Your task to perform on an android device: Do I have any events tomorrow? Image 0: 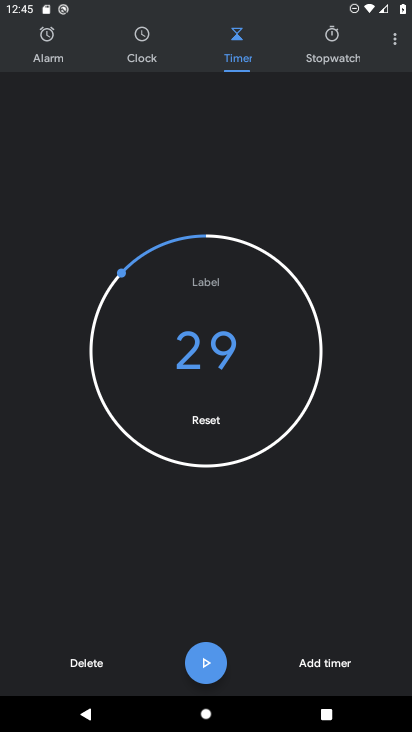
Step 0: press home button
Your task to perform on an android device: Do I have any events tomorrow? Image 1: 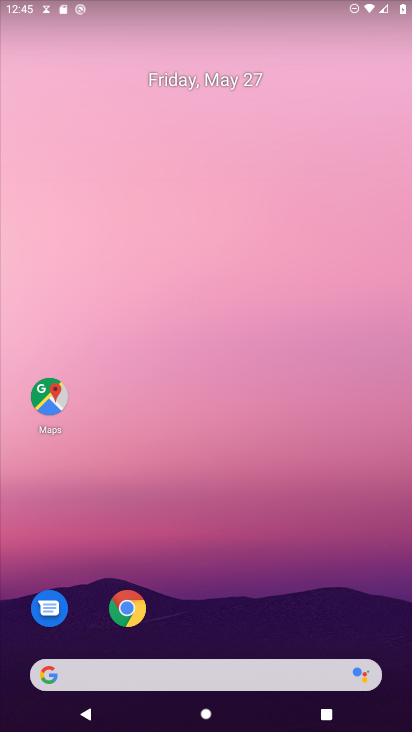
Step 1: drag from (144, 675) to (324, 84)
Your task to perform on an android device: Do I have any events tomorrow? Image 2: 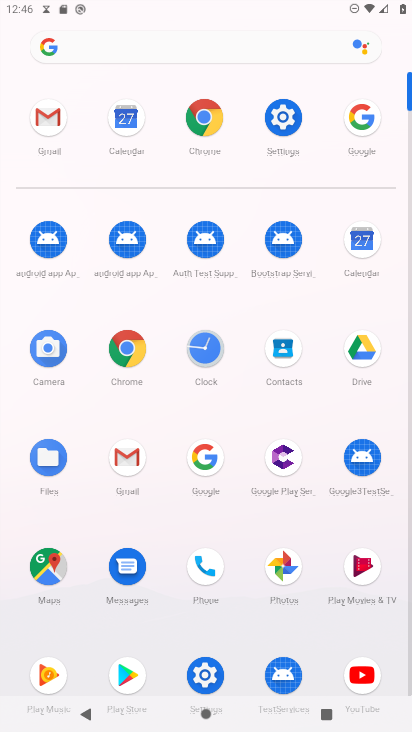
Step 2: click (358, 246)
Your task to perform on an android device: Do I have any events tomorrow? Image 3: 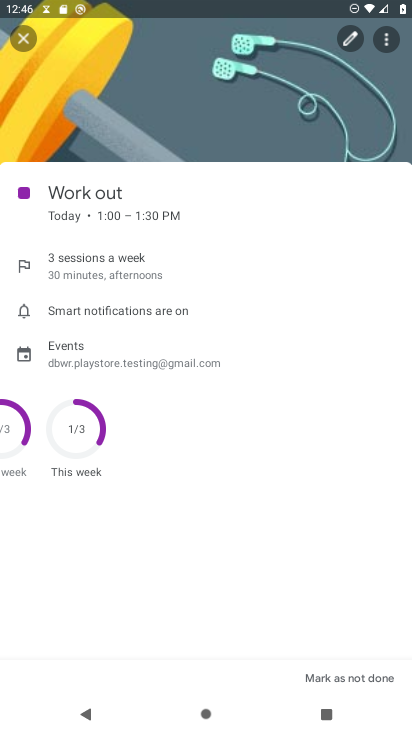
Step 3: click (20, 40)
Your task to perform on an android device: Do I have any events tomorrow? Image 4: 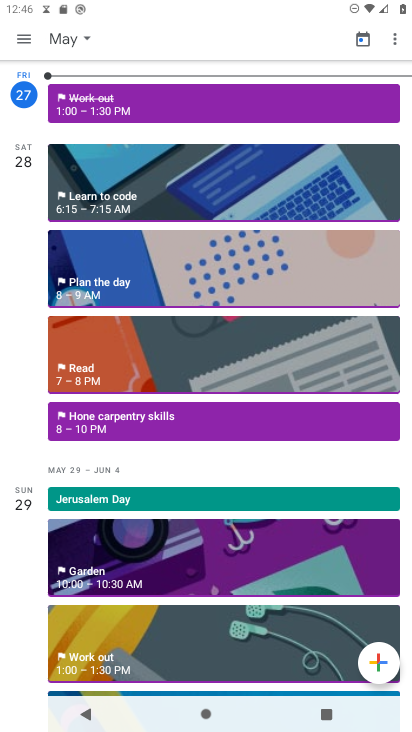
Step 4: click (62, 32)
Your task to perform on an android device: Do I have any events tomorrow? Image 5: 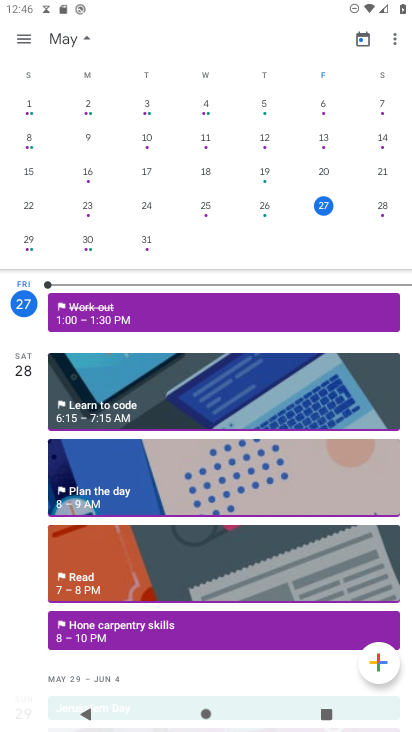
Step 5: click (381, 213)
Your task to perform on an android device: Do I have any events tomorrow? Image 6: 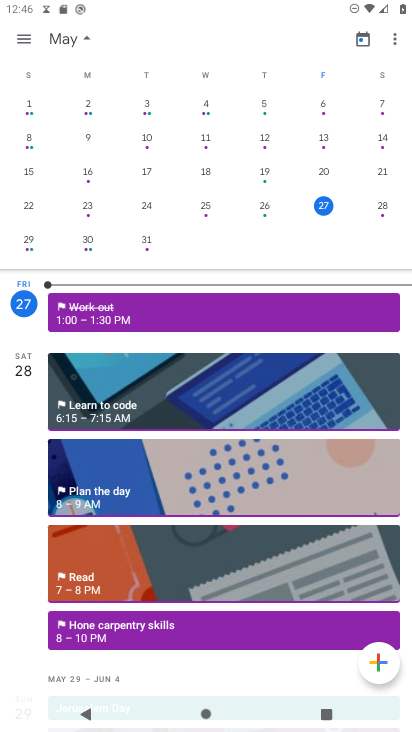
Step 6: click (383, 199)
Your task to perform on an android device: Do I have any events tomorrow? Image 7: 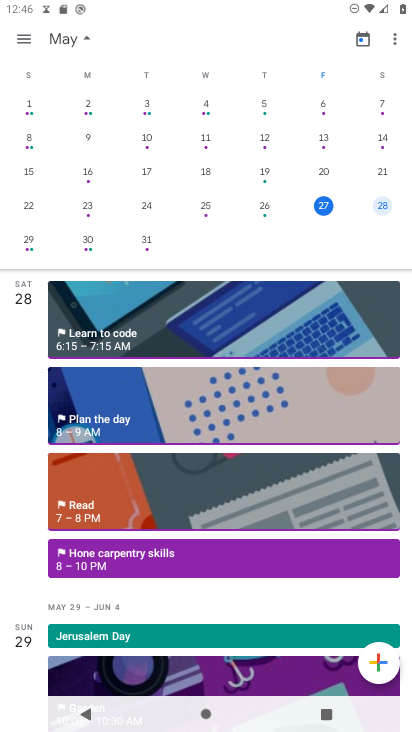
Step 7: click (23, 38)
Your task to perform on an android device: Do I have any events tomorrow? Image 8: 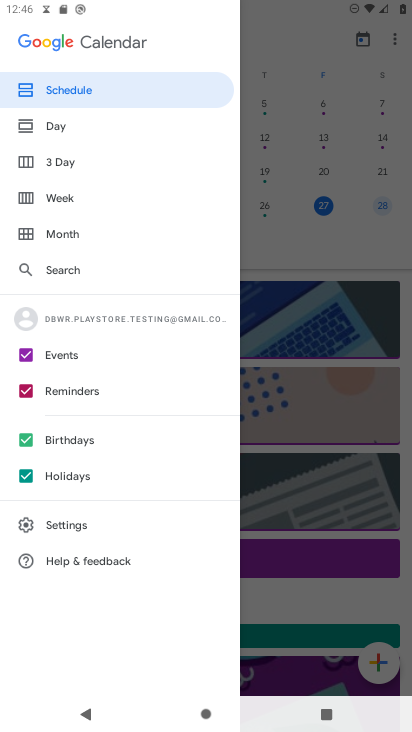
Step 8: click (73, 88)
Your task to perform on an android device: Do I have any events tomorrow? Image 9: 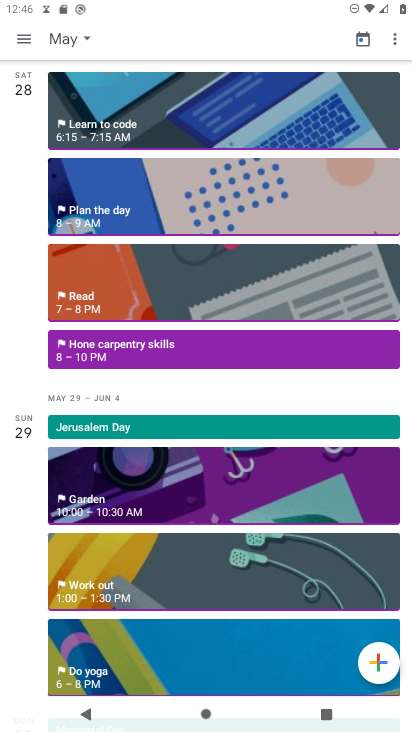
Step 9: click (157, 337)
Your task to perform on an android device: Do I have any events tomorrow? Image 10: 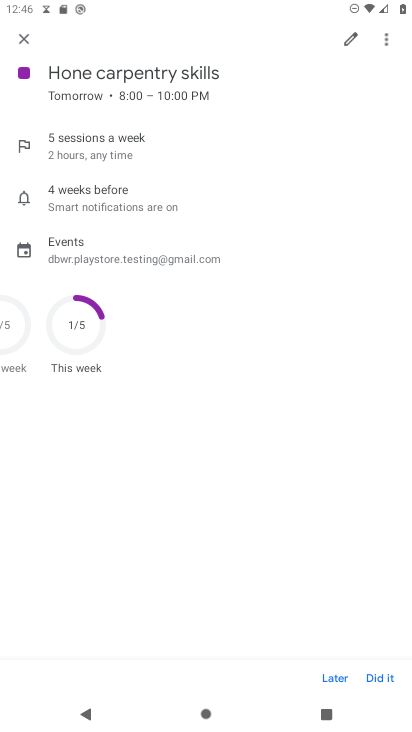
Step 10: task complete